Your task to perform on an android device: check storage Image 0: 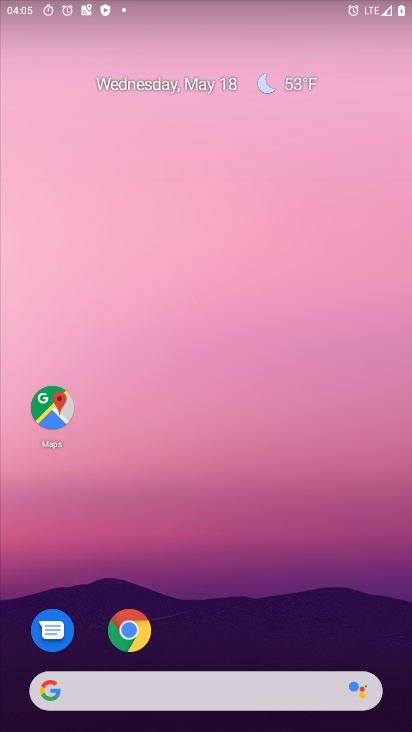
Step 0: drag from (187, 731) to (195, 103)
Your task to perform on an android device: check storage Image 1: 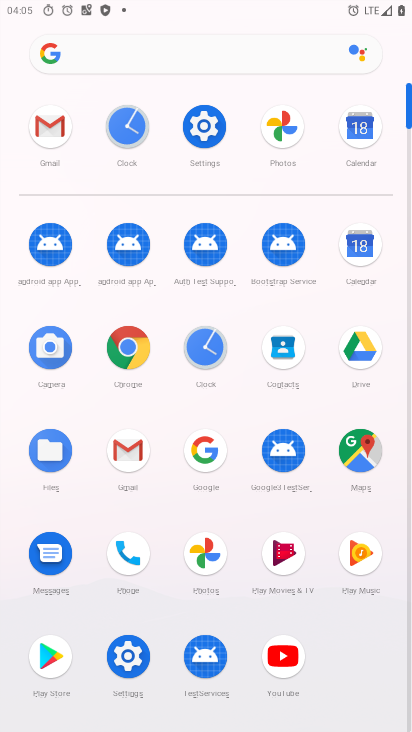
Step 1: click (126, 649)
Your task to perform on an android device: check storage Image 2: 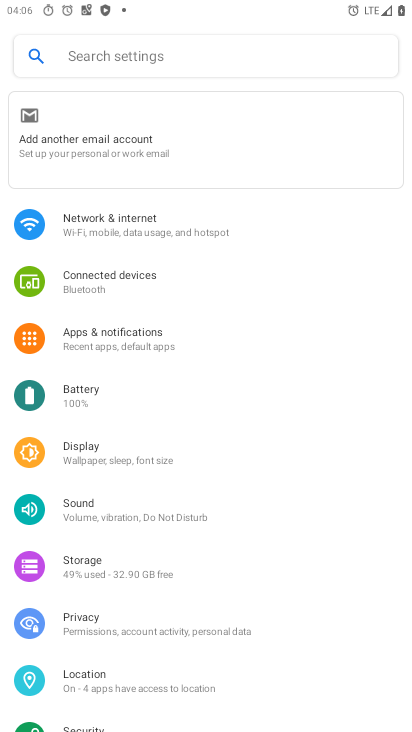
Step 2: click (92, 560)
Your task to perform on an android device: check storage Image 3: 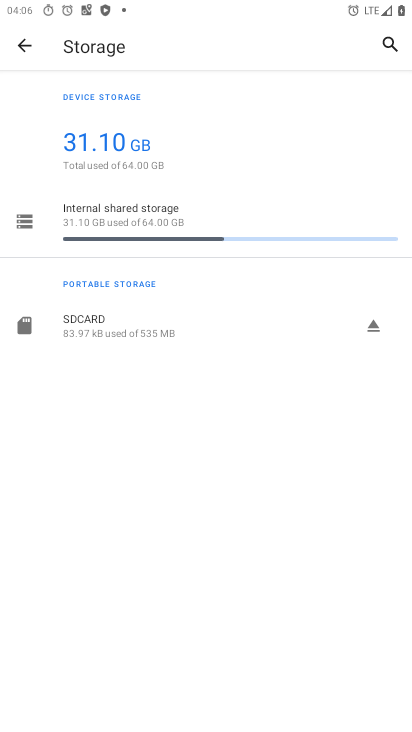
Step 3: task complete